Your task to perform on an android device: toggle show notifications on the lock screen Image 0: 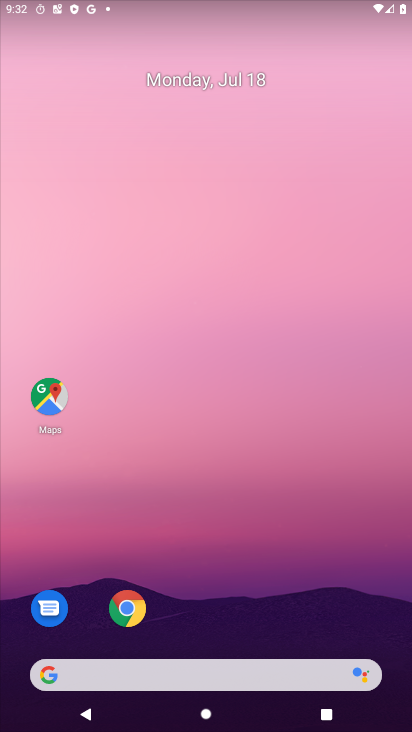
Step 0: drag from (207, 591) to (158, 57)
Your task to perform on an android device: toggle show notifications on the lock screen Image 1: 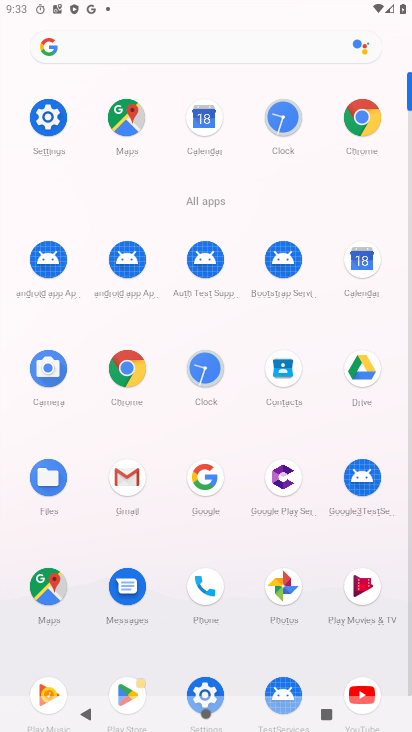
Step 1: click (37, 124)
Your task to perform on an android device: toggle show notifications on the lock screen Image 2: 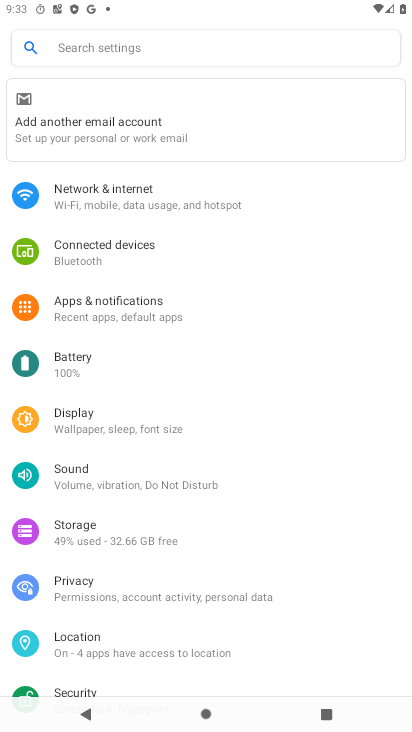
Step 2: click (57, 300)
Your task to perform on an android device: toggle show notifications on the lock screen Image 3: 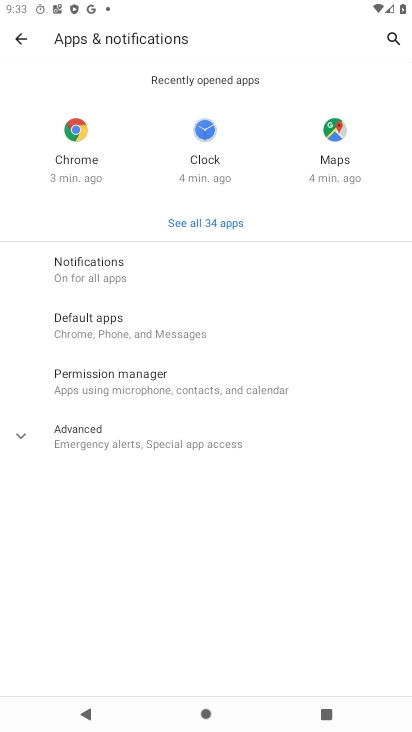
Step 3: click (76, 267)
Your task to perform on an android device: toggle show notifications on the lock screen Image 4: 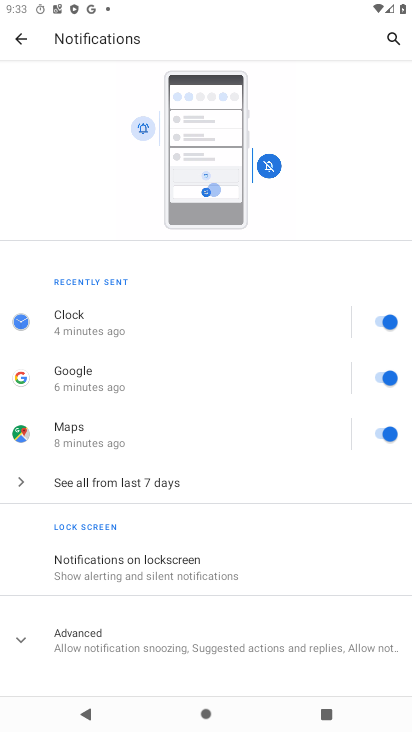
Step 4: click (171, 560)
Your task to perform on an android device: toggle show notifications on the lock screen Image 5: 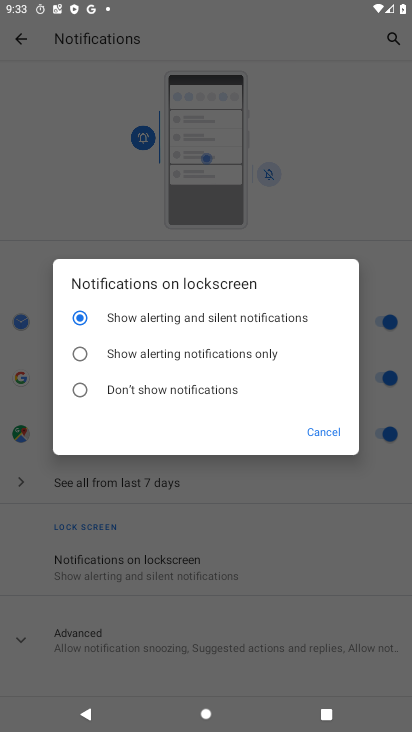
Step 5: click (72, 386)
Your task to perform on an android device: toggle show notifications on the lock screen Image 6: 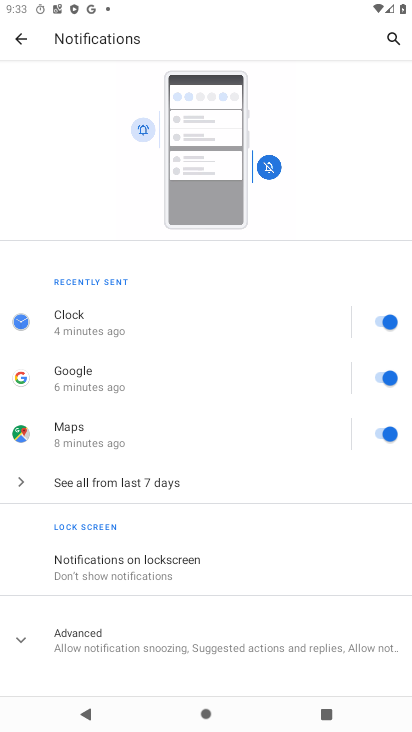
Step 6: task complete